Your task to perform on an android device: visit the assistant section in the google photos Image 0: 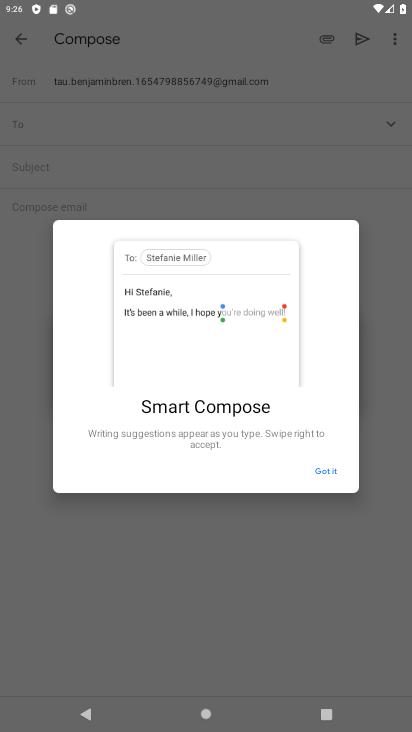
Step 0: click (117, 604)
Your task to perform on an android device: visit the assistant section in the google photos Image 1: 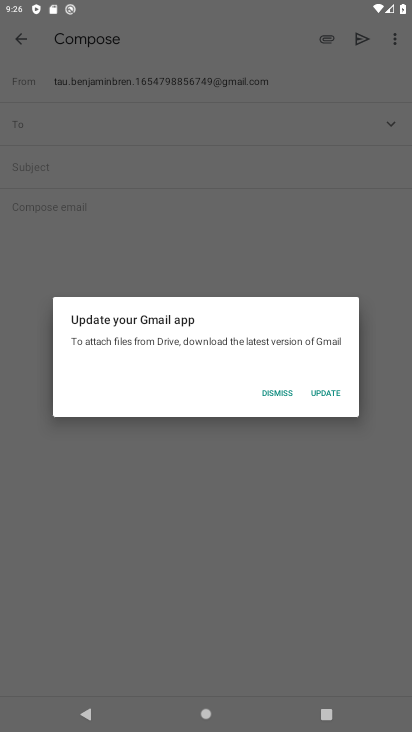
Step 1: press home button
Your task to perform on an android device: visit the assistant section in the google photos Image 2: 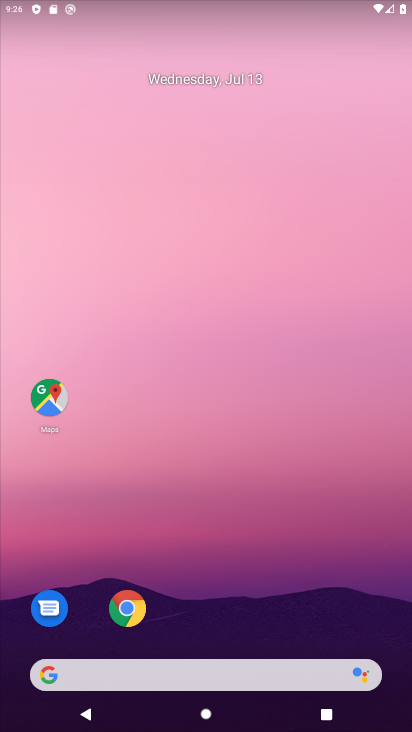
Step 2: drag from (114, 493) to (180, 272)
Your task to perform on an android device: visit the assistant section in the google photos Image 3: 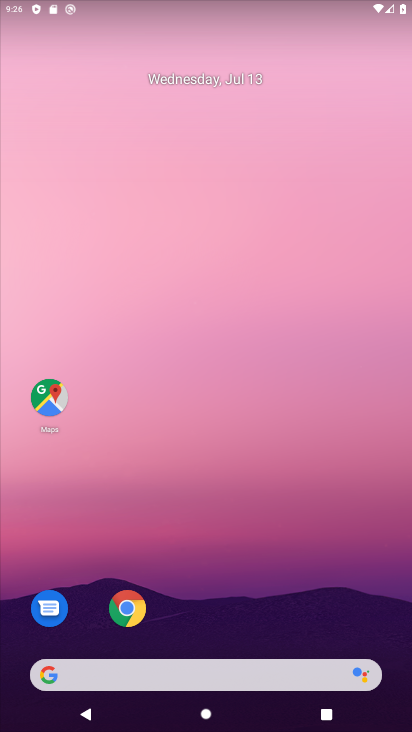
Step 3: drag from (60, 705) to (251, 41)
Your task to perform on an android device: visit the assistant section in the google photos Image 4: 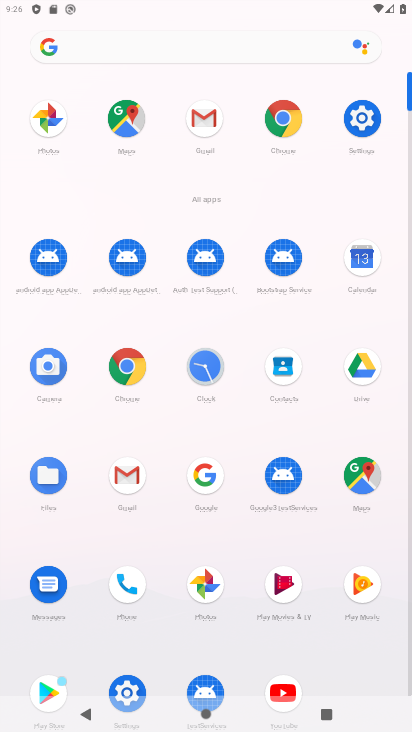
Step 4: click (203, 577)
Your task to perform on an android device: visit the assistant section in the google photos Image 5: 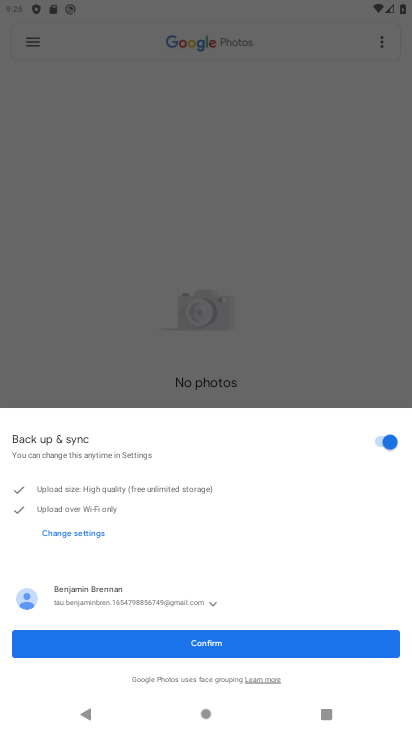
Step 5: click (185, 641)
Your task to perform on an android device: visit the assistant section in the google photos Image 6: 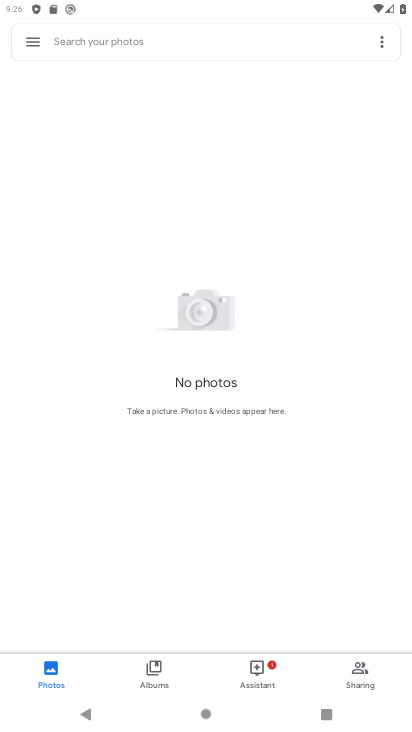
Step 6: click (261, 675)
Your task to perform on an android device: visit the assistant section in the google photos Image 7: 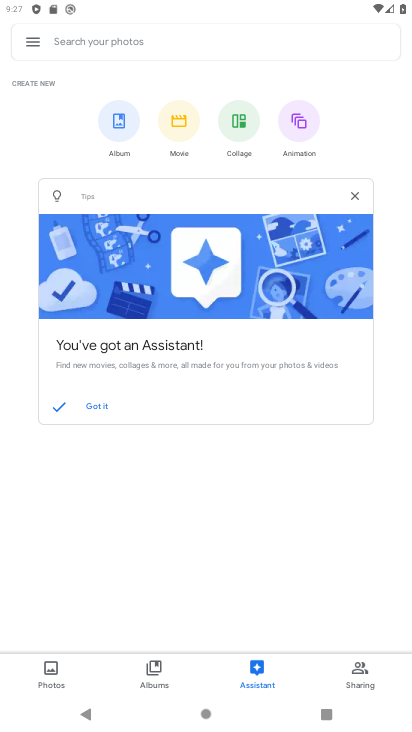
Step 7: task complete